Your task to perform on an android device: Search for razer huntsman on amazon.com, select the first entry, add it to the cart, then select checkout. Image 0: 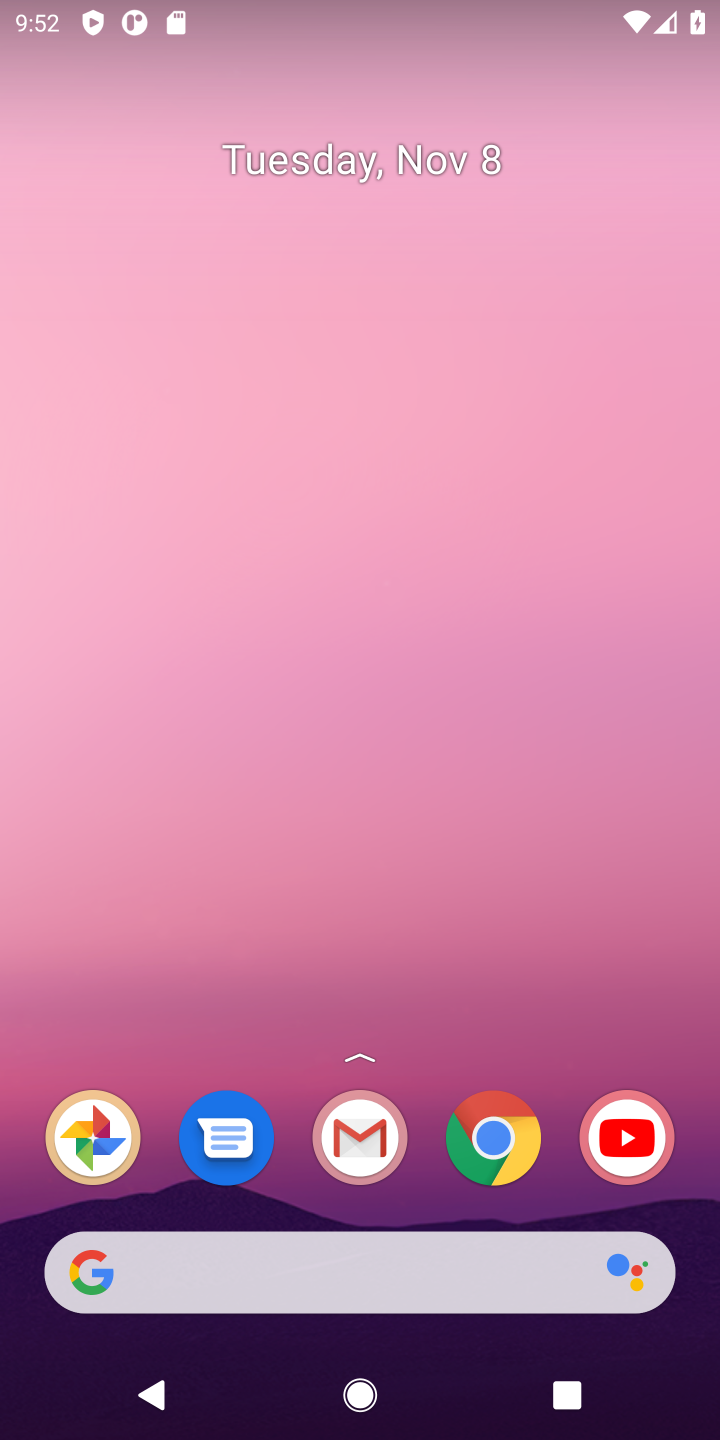
Step 0: click (497, 1133)
Your task to perform on an android device: Search for razer huntsman on amazon.com, select the first entry, add it to the cart, then select checkout. Image 1: 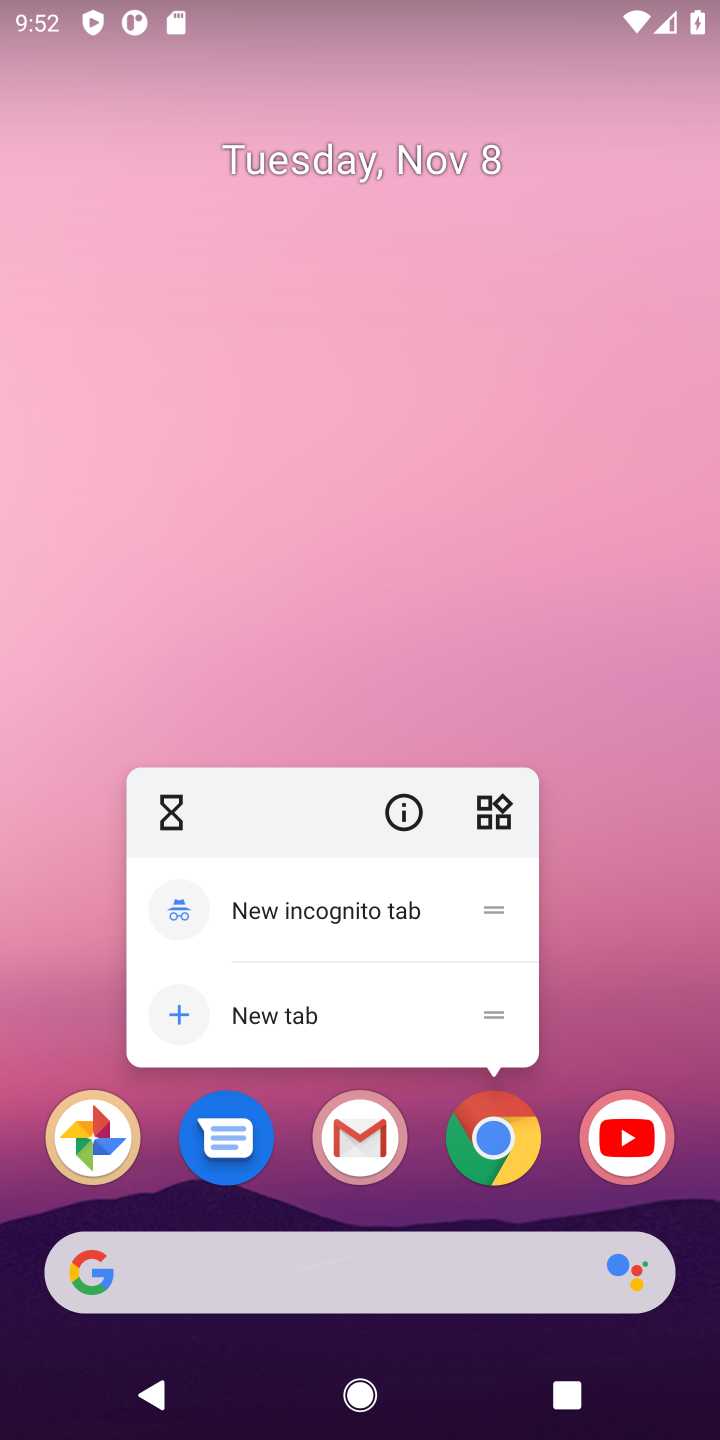
Step 1: click (497, 1147)
Your task to perform on an android device: Search for razer huntsman on amazon.com, select the first entry, add it to the cart, then select checkout. Image 2: 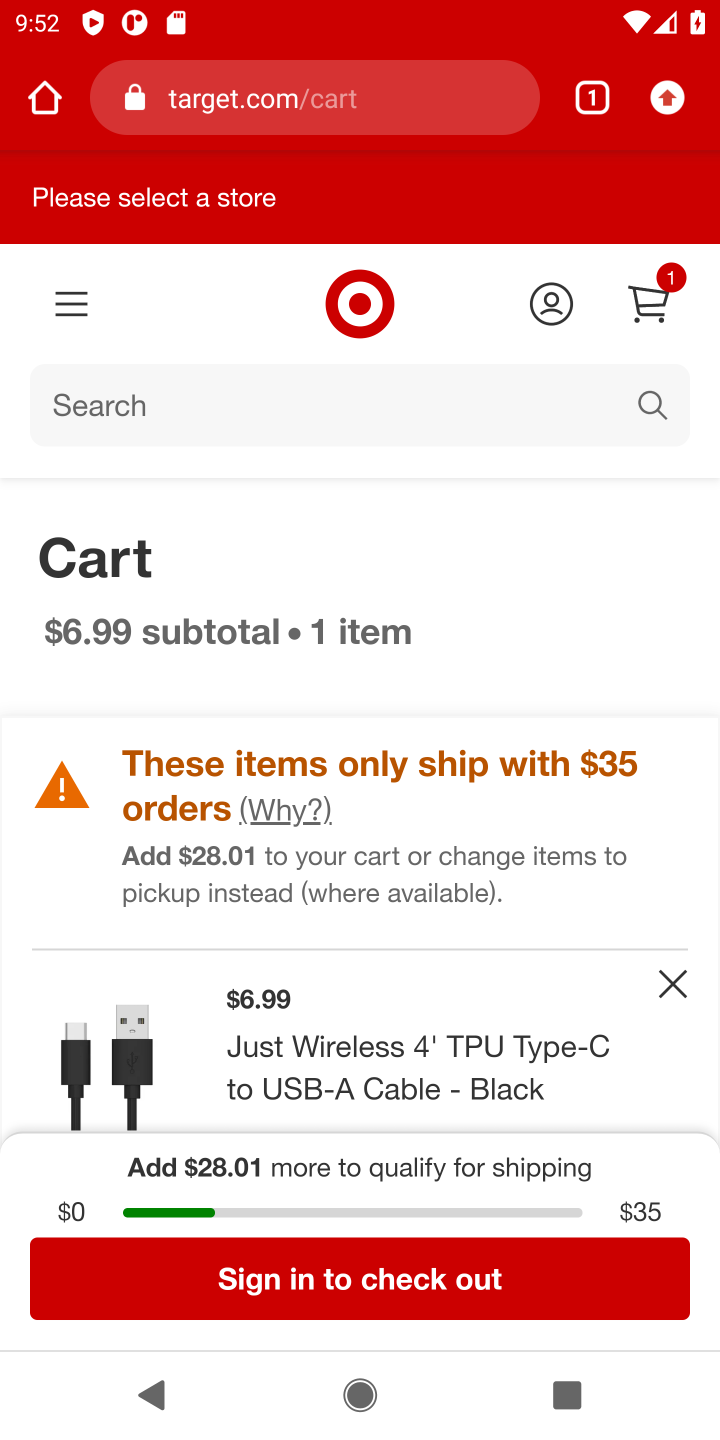
Step 2: click (295, 87)
Your task to perform on an android device: Search for razer huntsman on amazon.com, select the first entry, add it to the cart, then select checkout. Image 3: 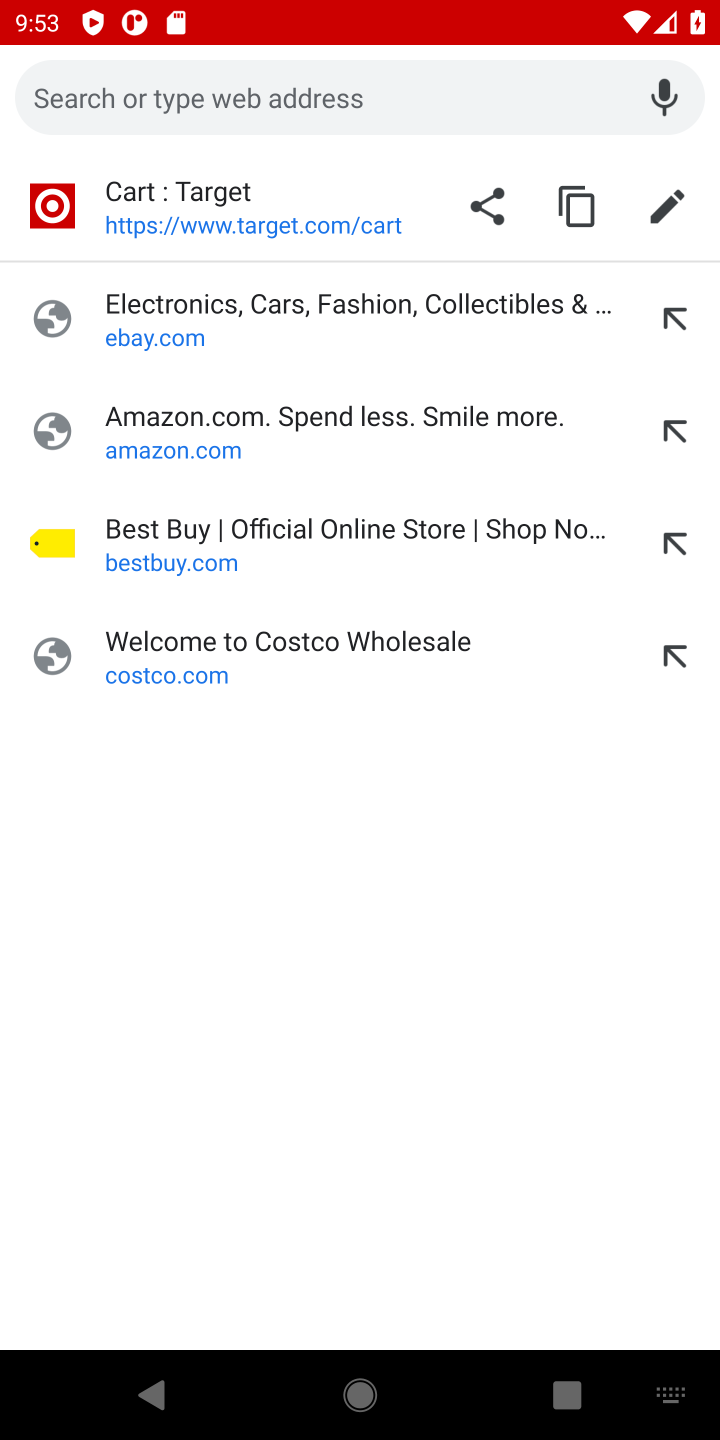
Step 3: click (186, 443)
Your task to perform on an android device: Search for razer huntsman on amazon.com, select the first entry, add it to the cart, then select checkout. Image 4: 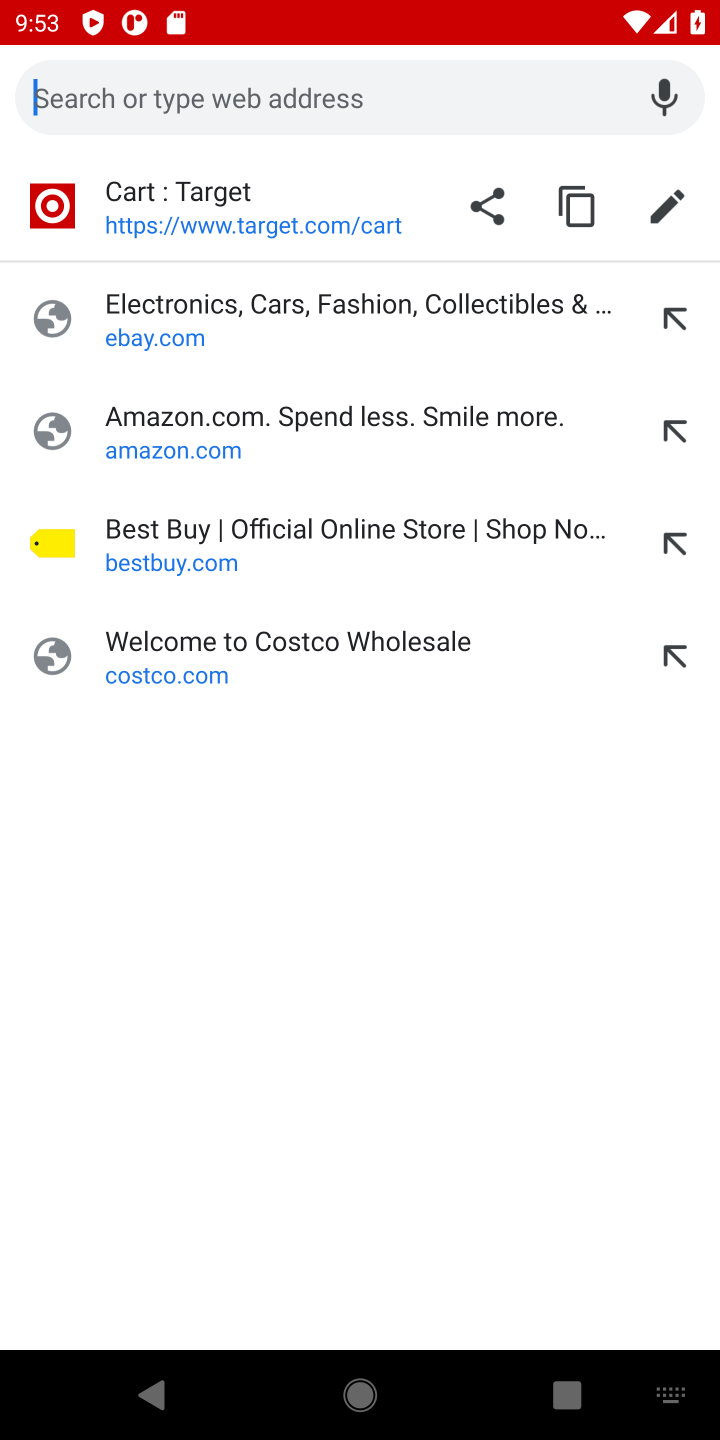
Step 4: click (184, 445)
Your task to perform on an android device: Search for razer huntsman on amazon.com, select the first entry, add it to the cart, then select checkout. Image 5: 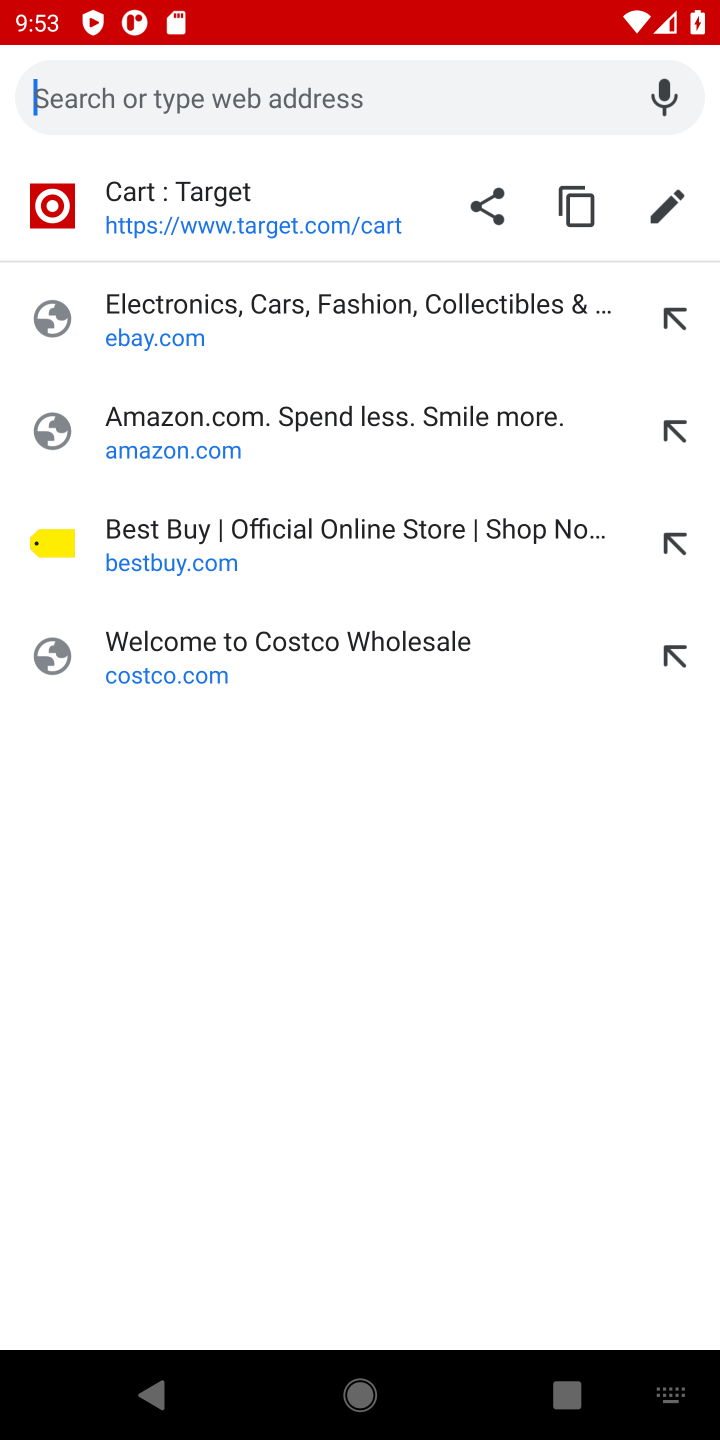
Step 5: click (178, 449)
Your task to perform on an android device: Search for razer huntsman on amazon.com, select the first entry, add it to the cart, then select checkout. Image 6: 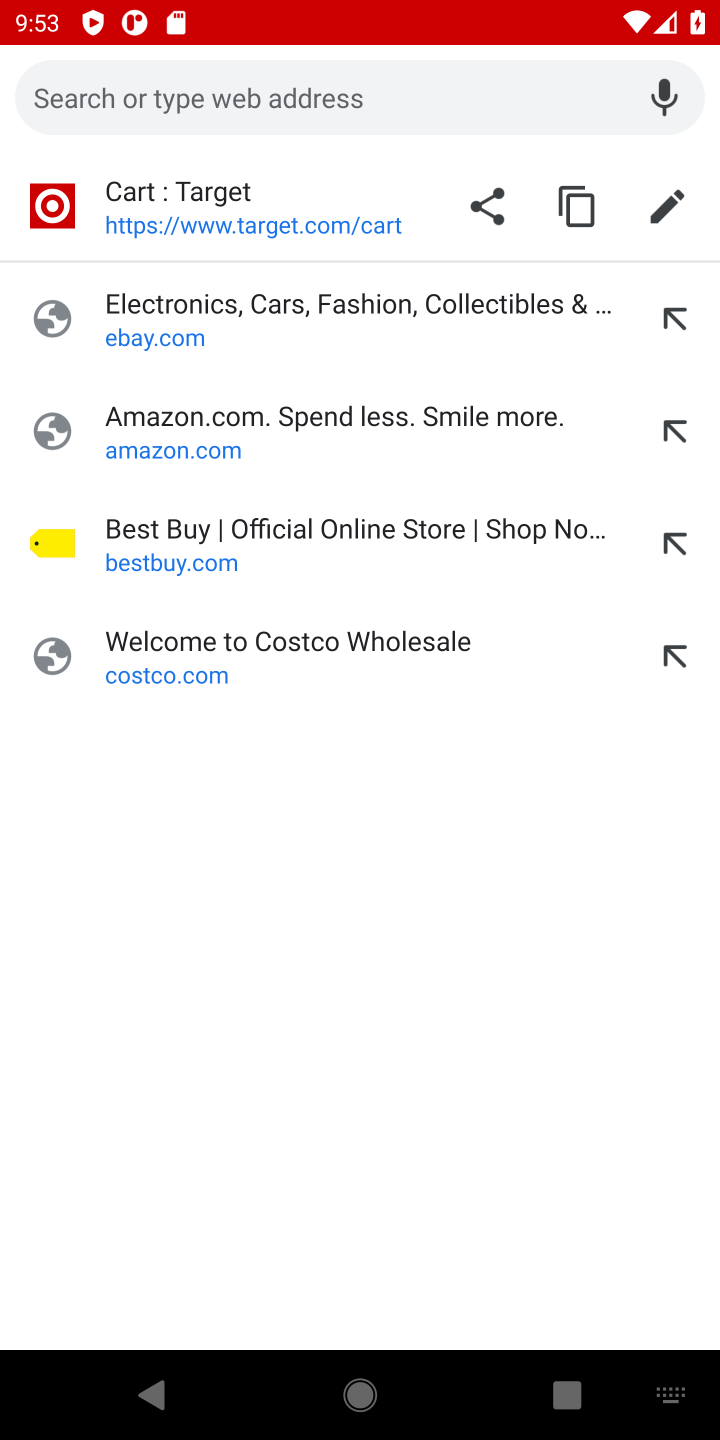
Step 6: click (171, 441)
Your task to perform on an android device: Search for razer huntsman on amazon.com, select the first entry, add it to the cart, then select checkout. Image 7: 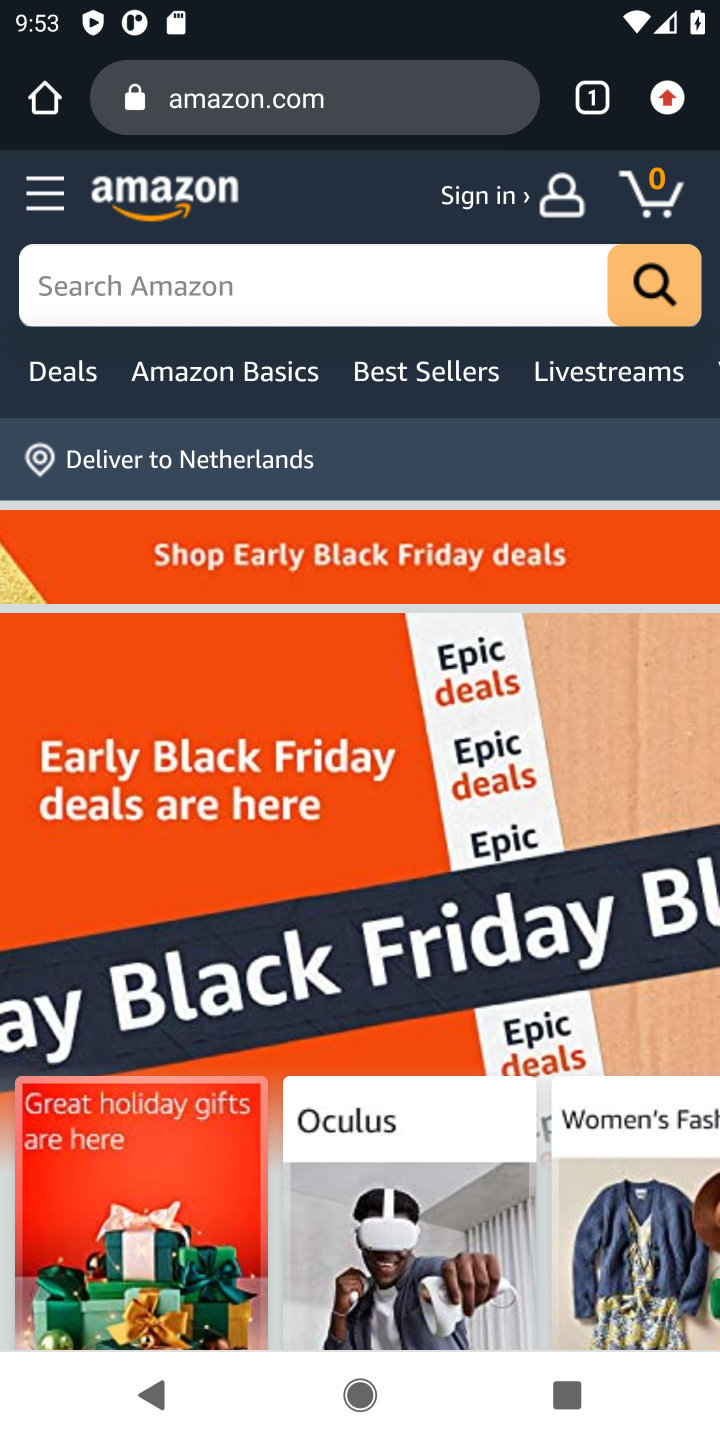
Step 7: click (91, 258)
Your task to perform on an android device: Search for razer huntsman on amazon.com, select the first entry, add it to the cart, then select checkout. Image 8: 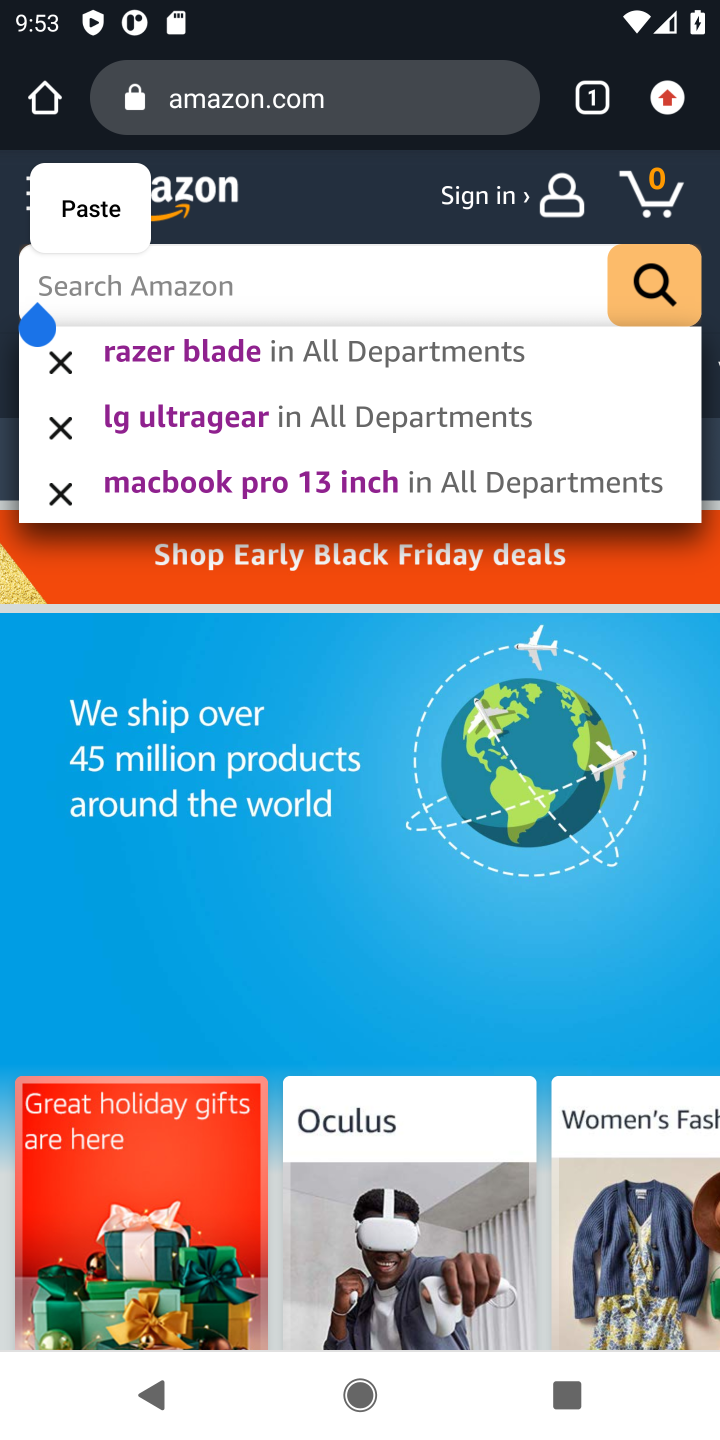
Step 8: press enter
Your task to perform on an android device: Search for razer huntsman on amazon.com, select the first entry, add it to the cart, then select checkout. Image 9: 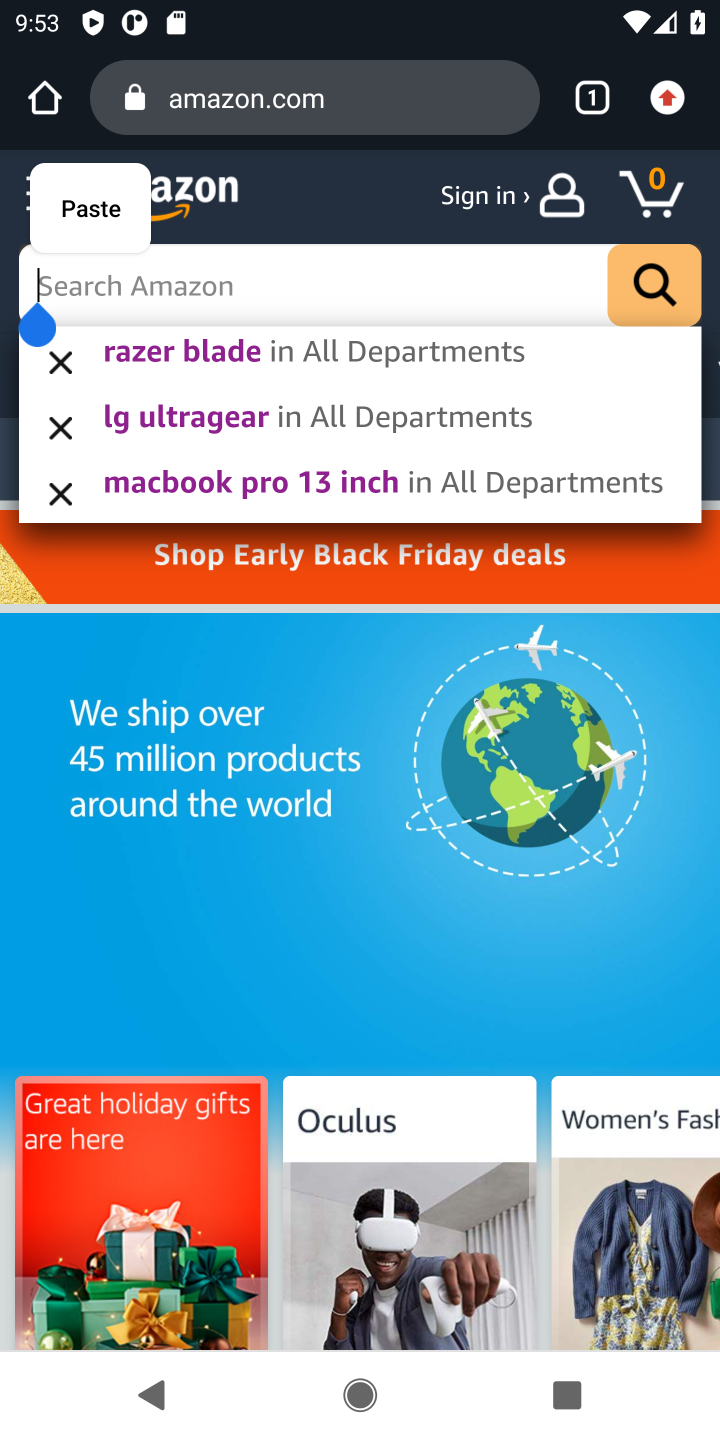
Step 9: type " razer huntsman "
Your task to perform on an android device: Search for razer huntsman on amazon.com, select the first entry, add it to the cart, then select checkout. Image 10: 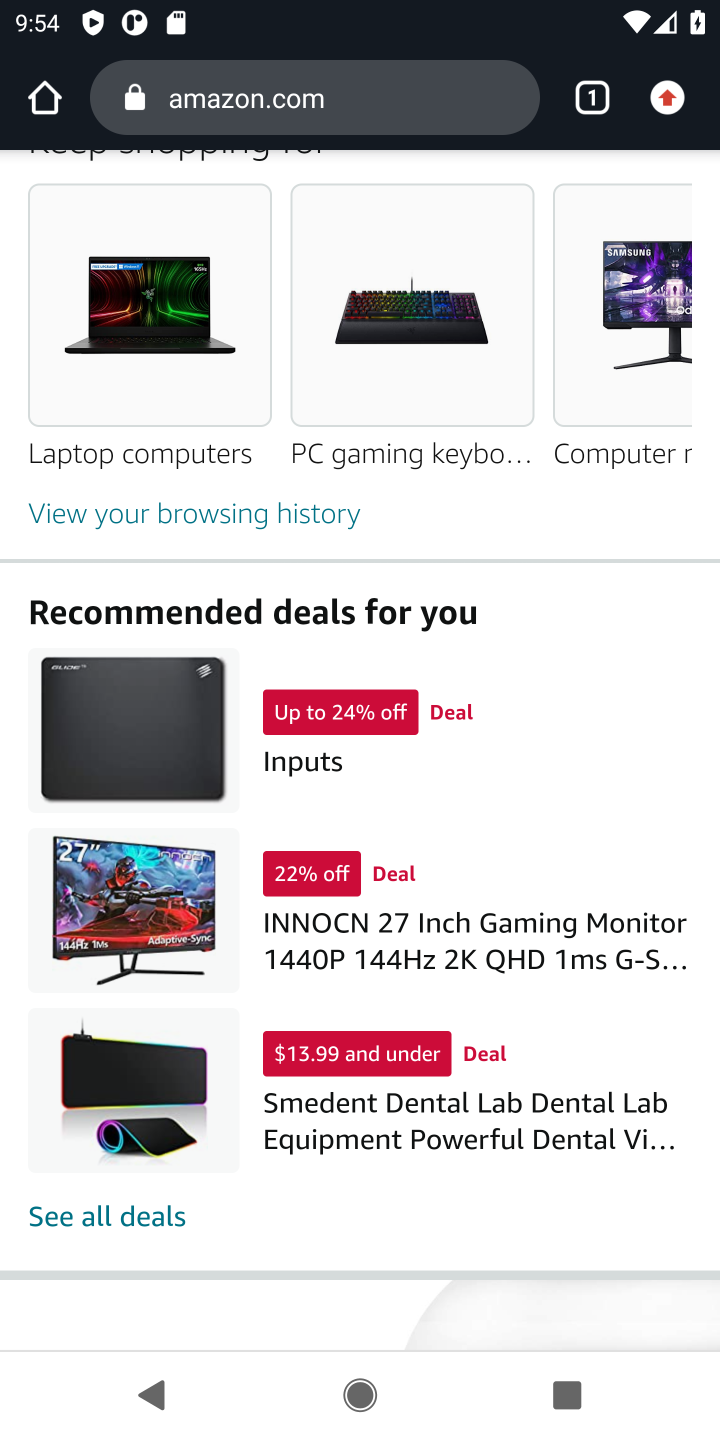
Step 10: drag from (543, 510) to (372, 1269)
Your task to perform on an android device: Search for razer huntsman on amazon.com, select the first entry, add it to the cart, then select checkout. Image 11: 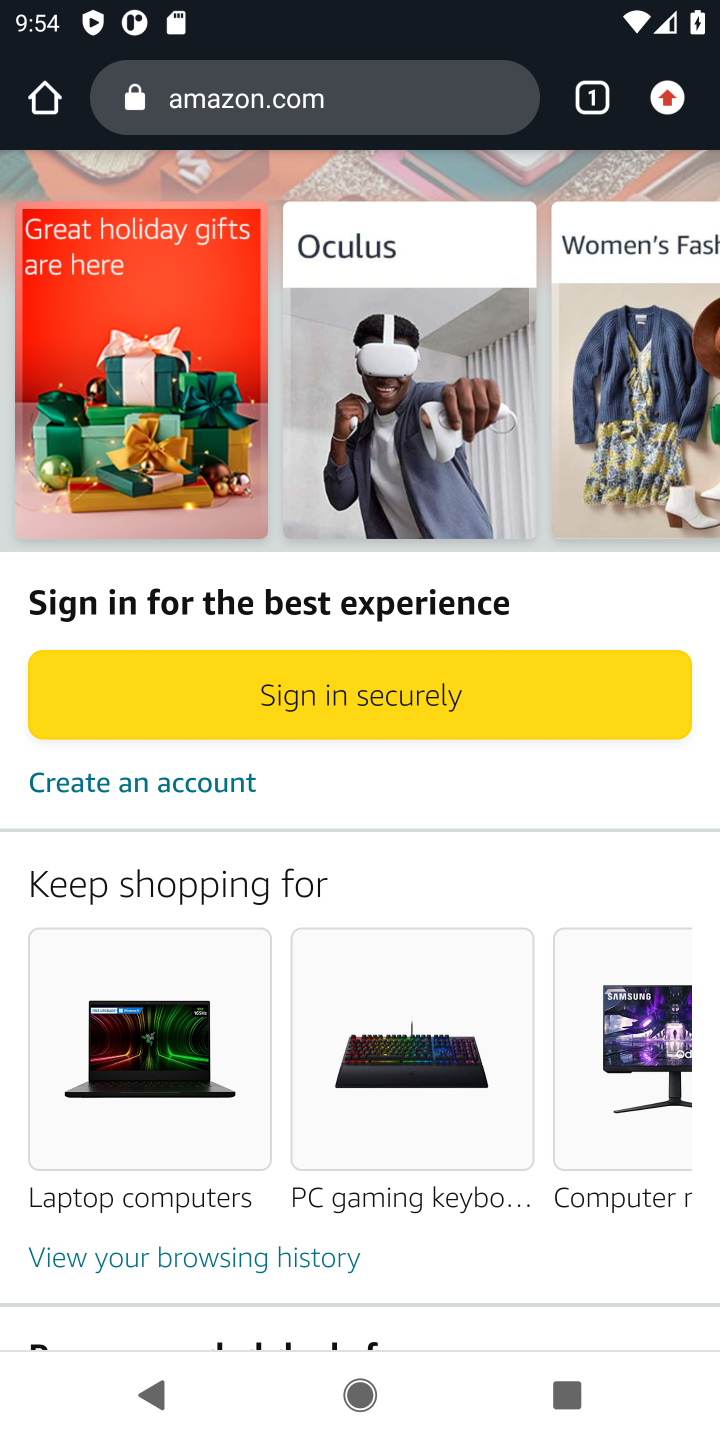
Step 11: drag from (577, 555) to (524, 1290)
Your task to perform on an android device: Search for razer huntsman on amazon.com, select the first entry, add it to the cart, then select checkout. Image 12: 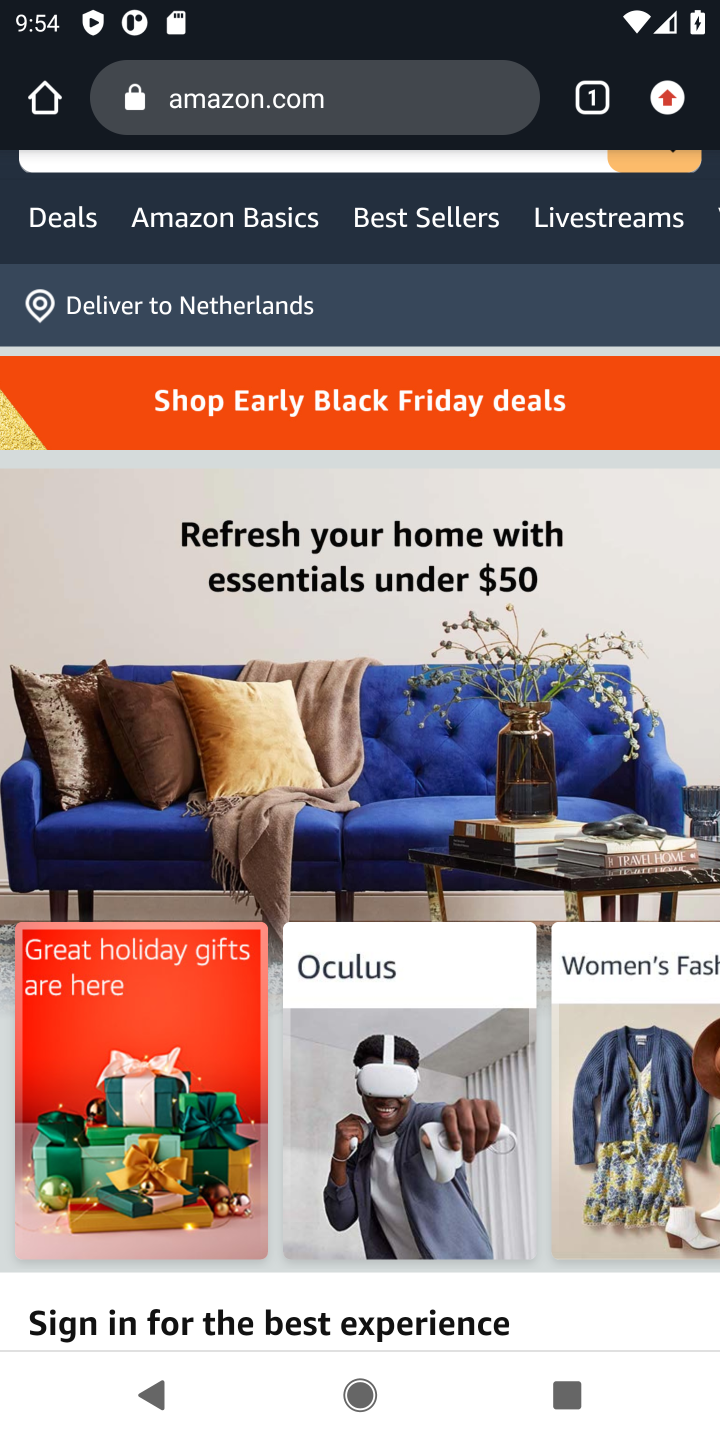
Step 12: drag from (453, 549) to (406, 1248)
Your task to perform on an android device: Search for razer huntsman on amazon.com, select the first entry, add it to the cart, then select checkout. Image 13: 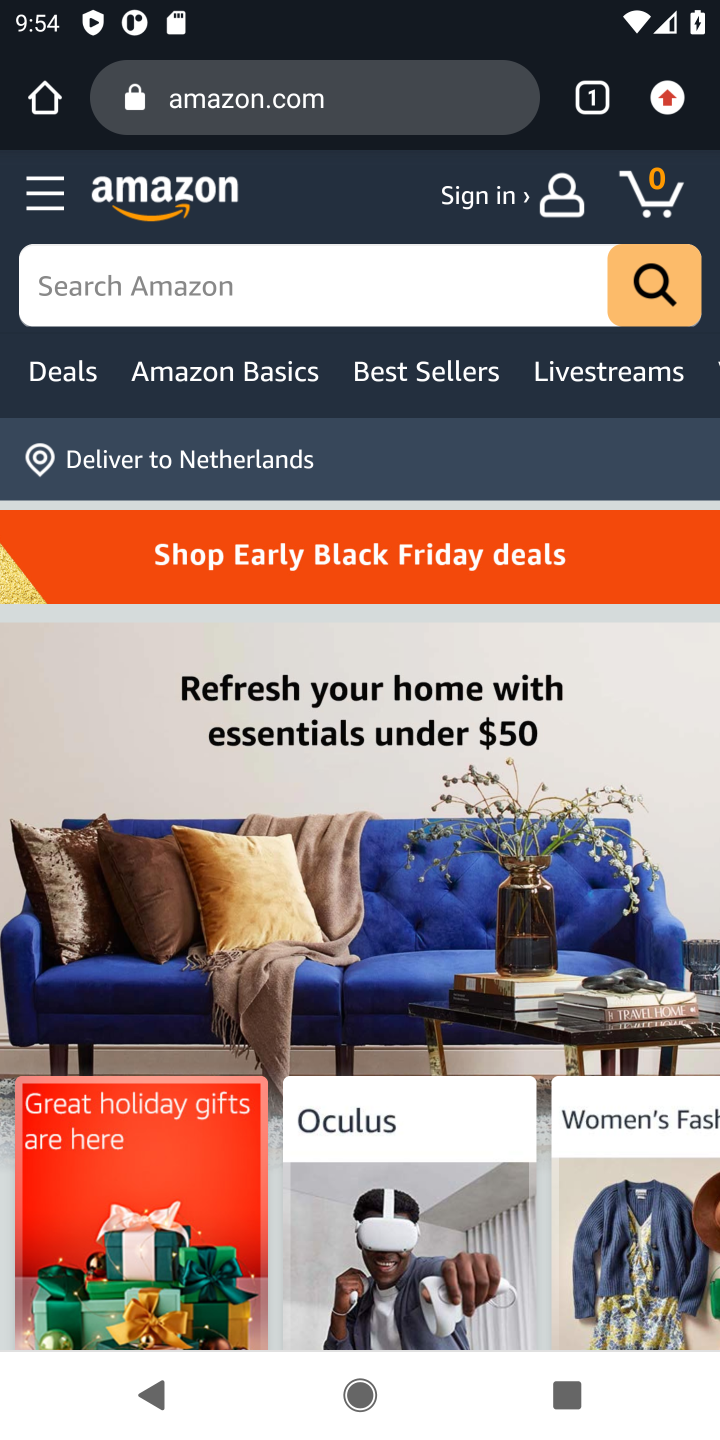
Step 13: click (166, 274)
Your task to perform on an android device: Search for razer huntsman on amazon.com, select the first entry, add it to the cart, then select checkout. Image 14: 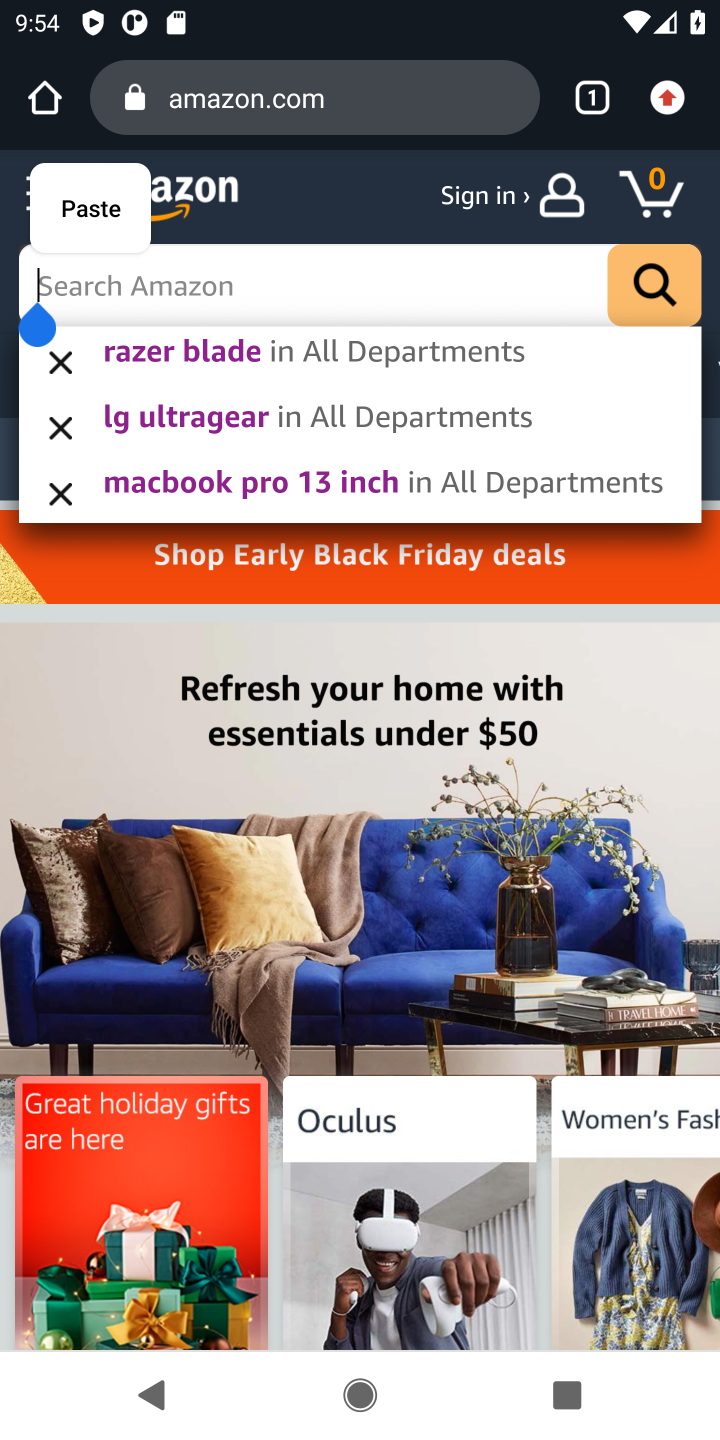
Step 14: press enter
Your task to perform on an android device: Search for razer huntsman on amazon.com, select the first entry, add it to the cart, then select checkout. Image 15: 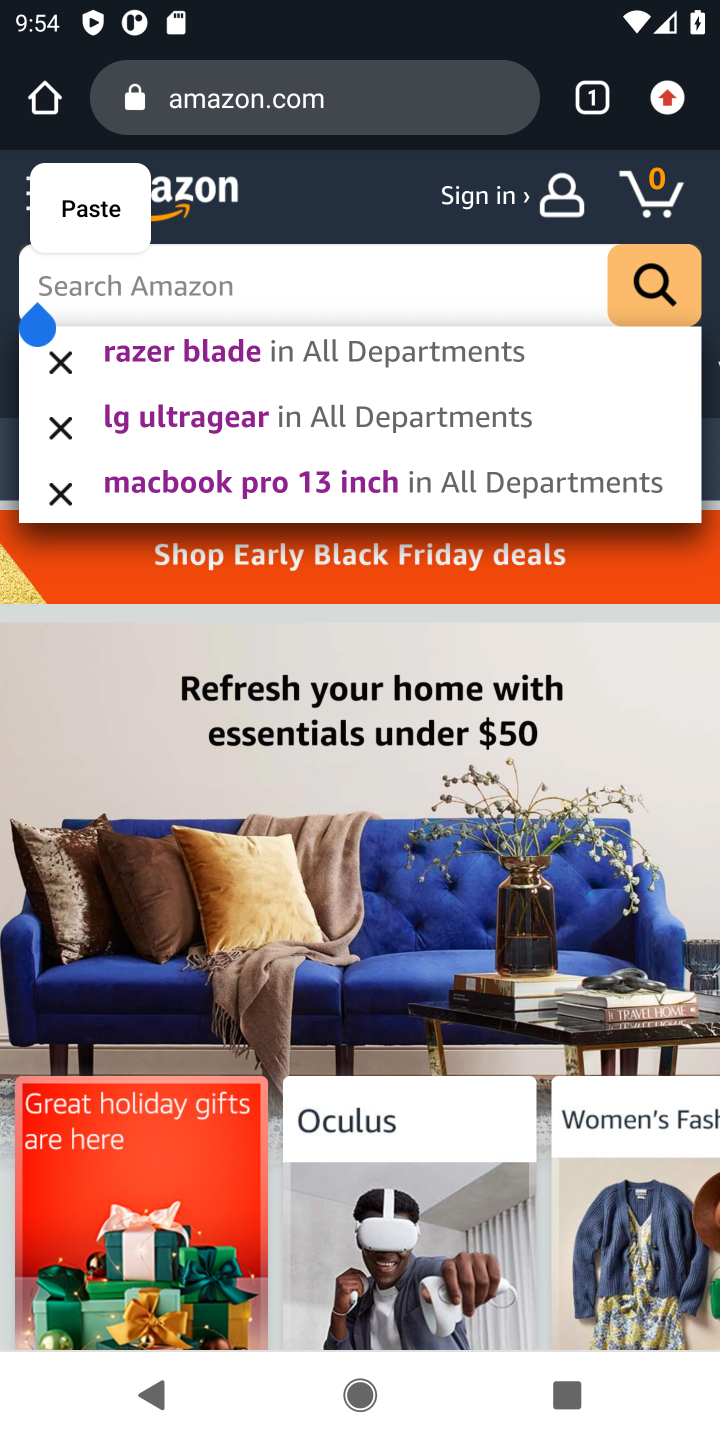
Step 15: type " razer huntsman"
Your task to perform on an android device: Search for razer huntsman on amazon.com, select the first entry, add it to the cart, then select checkout. Image 16: 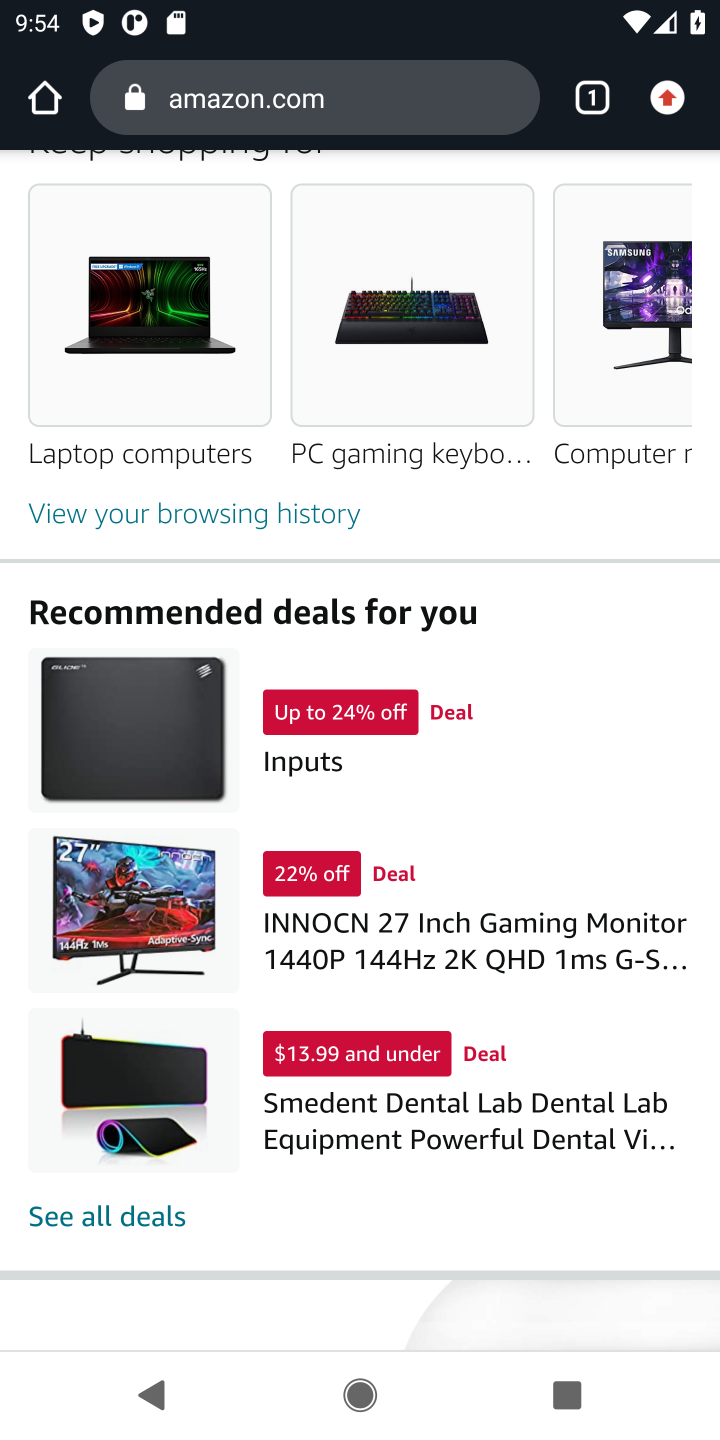
Step 16: drag from (495, 251) to (505, 1363)
Your task to perform on an android device: Search for razer huntsman on amazon.com, select the first entry, add it to the cart, then select checkout. Image 17: 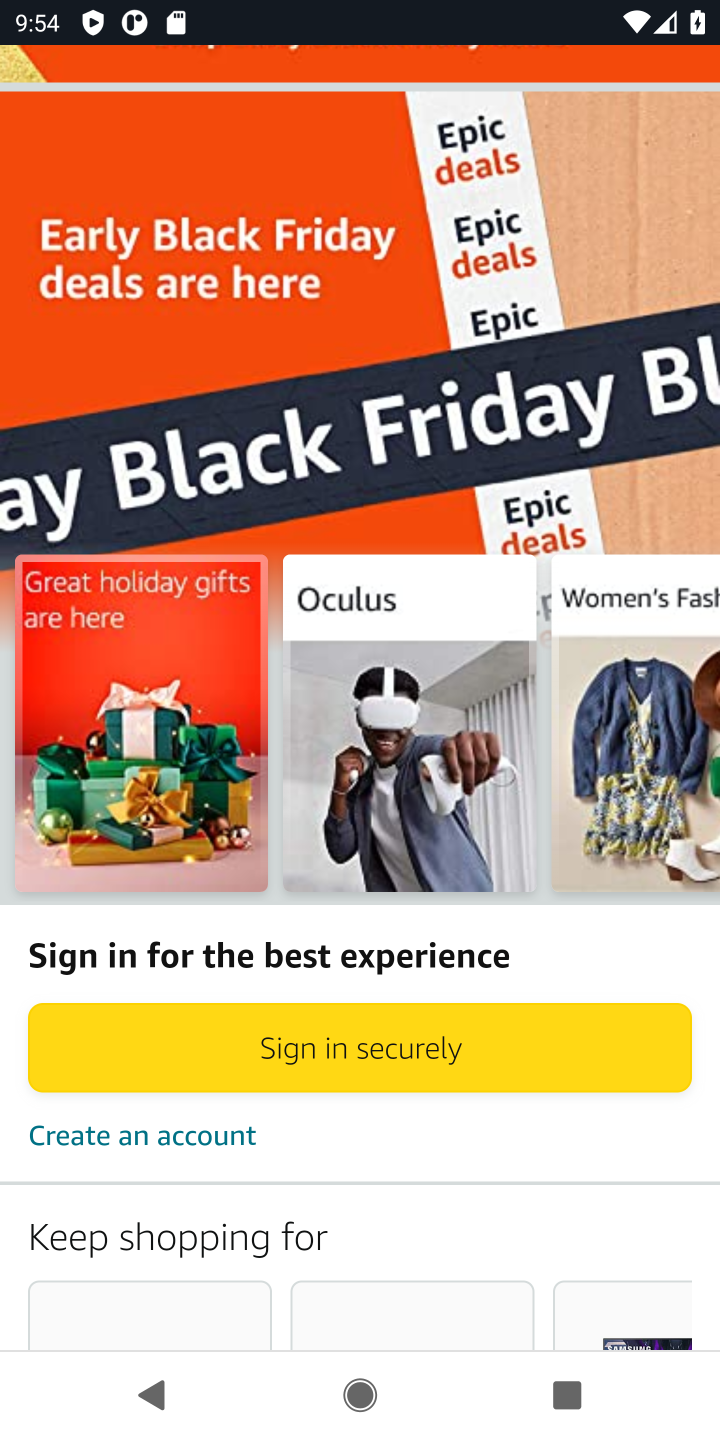
Step 17: drag from (493, 417) to (503, 1353)
Your task to perform on an android device: Search for razer huntsman on amazon.com, select the first entry, add it to the cart, then select checkout. Image 18: 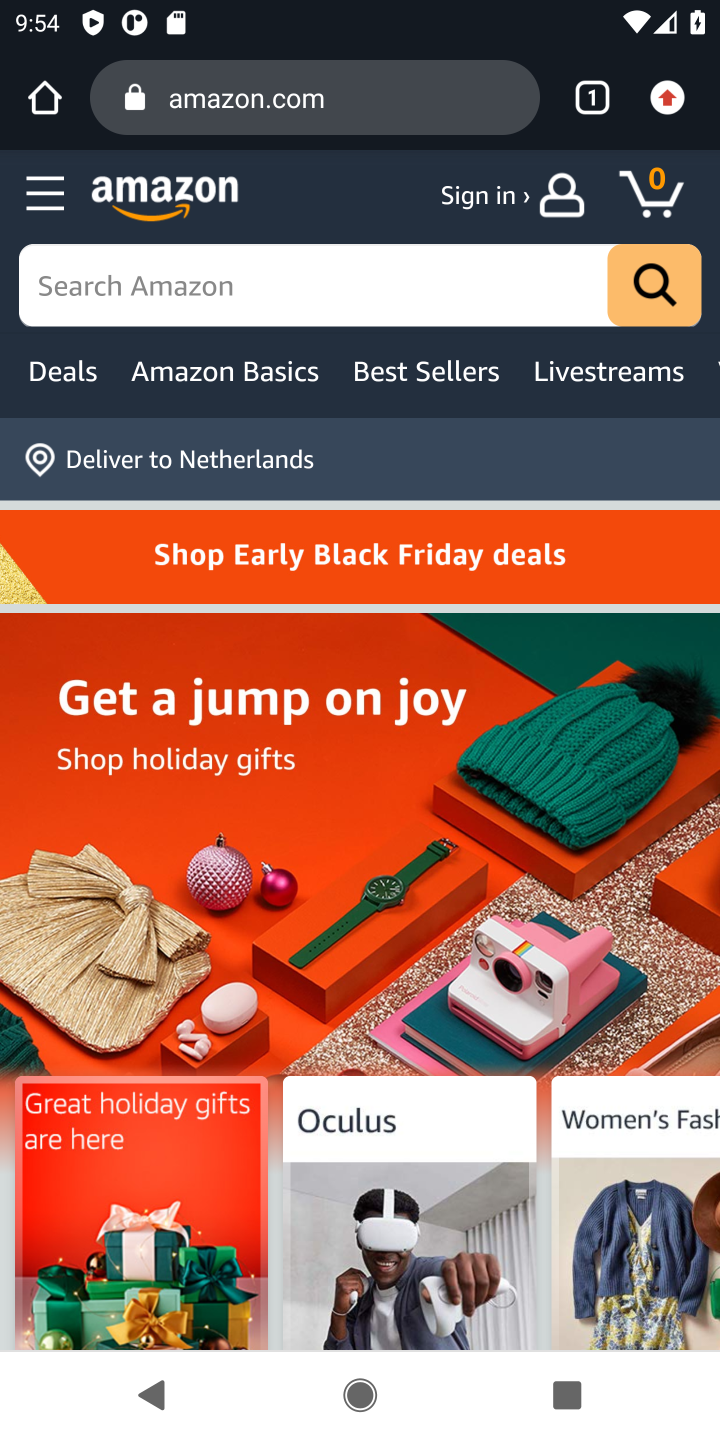
Step 18: click (42, 291)
Your task to perform on an android device: Search for razer huntsman on amazon.com, select the first entry, add it to the cart, then select checkout. Image 19: 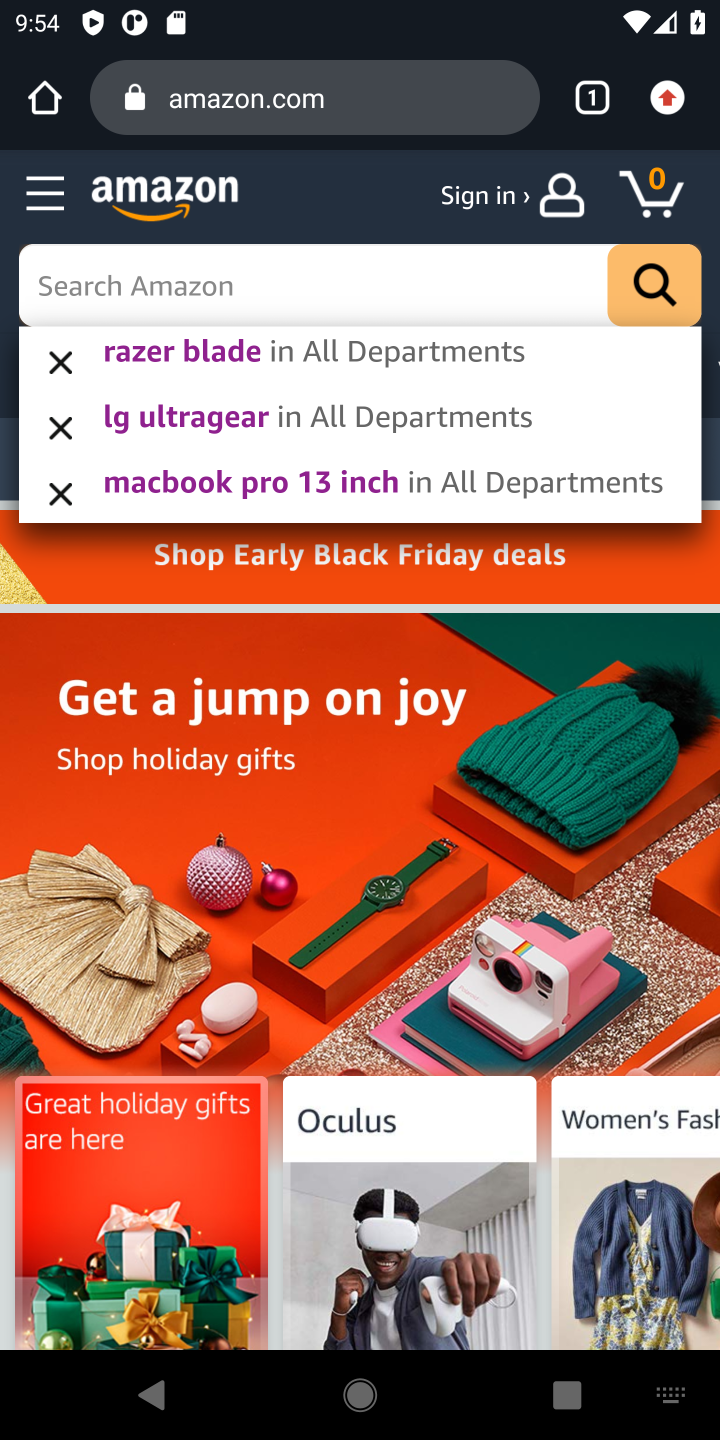
Step 19: click (75, 269)
Your task to perform on an android device: Search for razer huntsman on amazon.com, select the first entry, add it to the cart, then select checkout. Image 20: 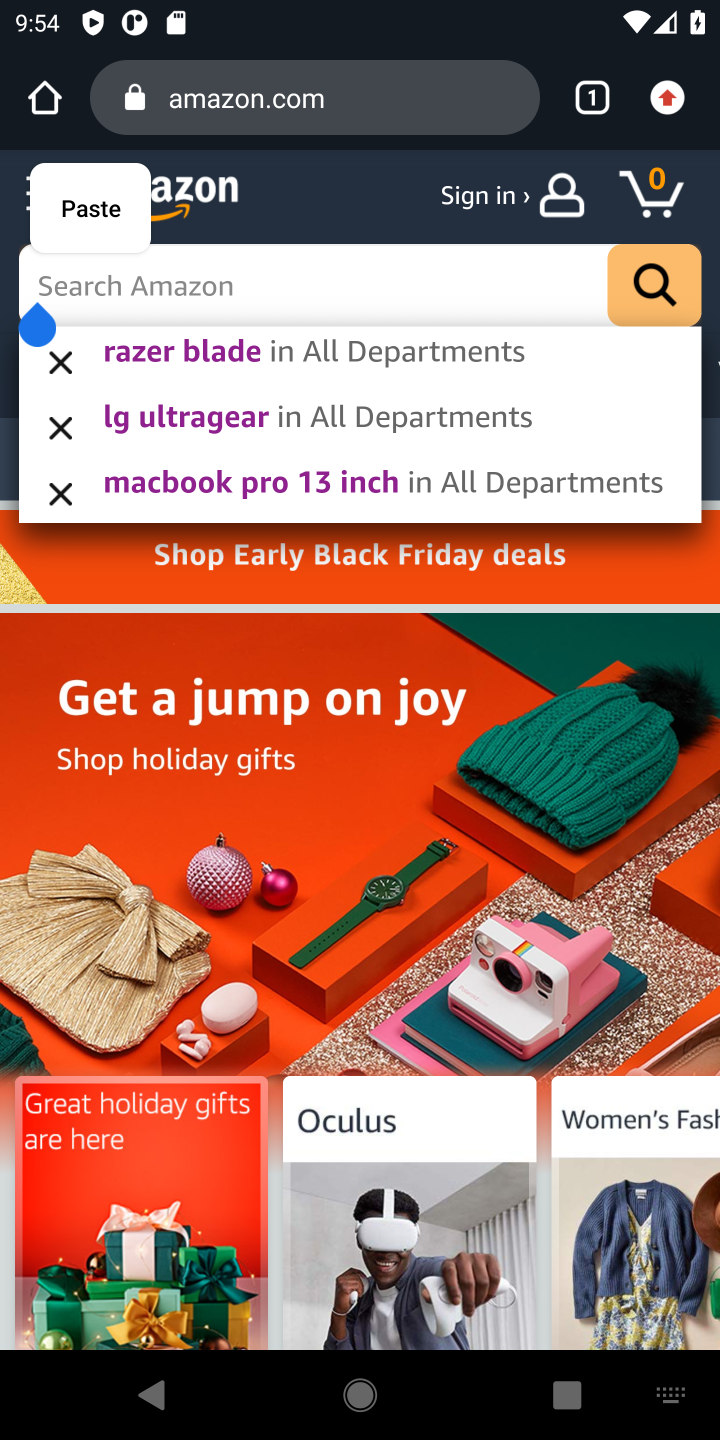
Step 20: type "razer huntsman"
Your task to perform on an android device: Search for razer huntsman on amazon.com, select the first entry, add it to the cart, then select checkout. Image 21: 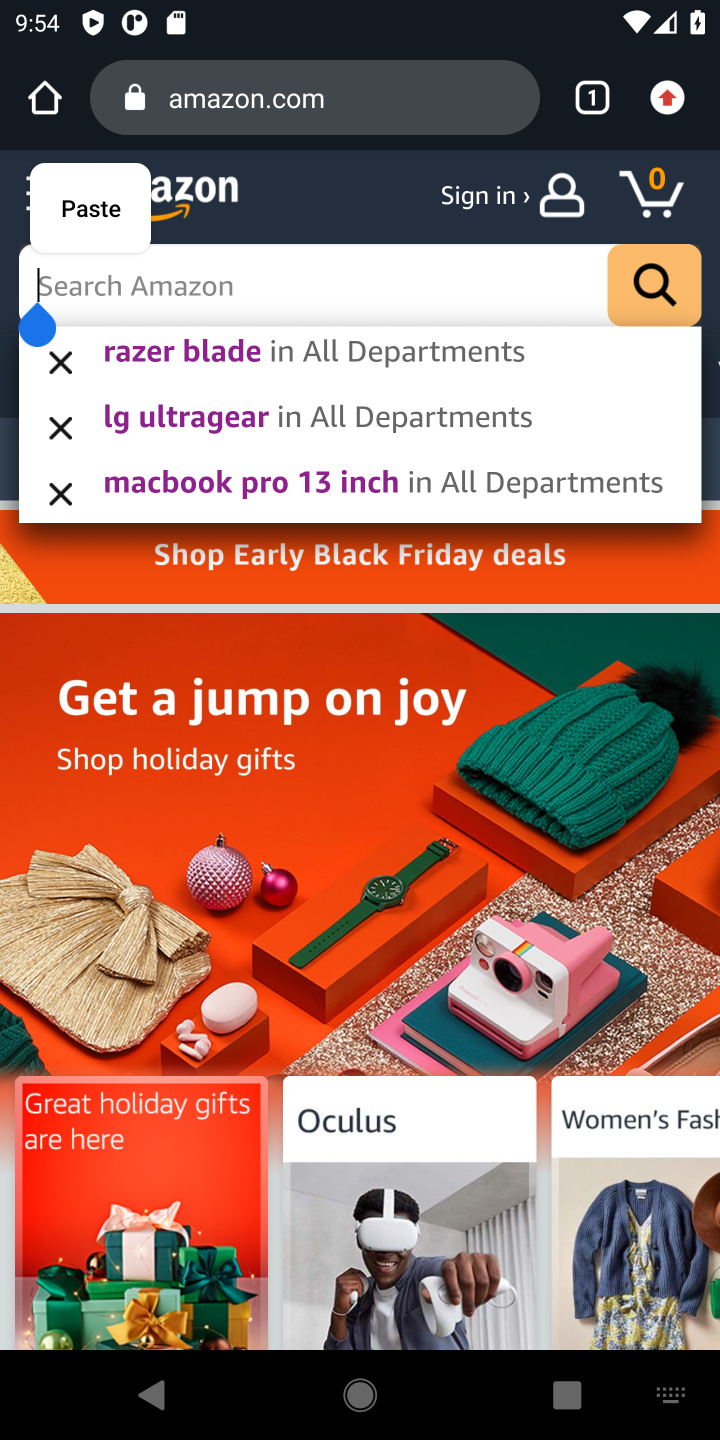
Step 21: click (148, 279)
Your task to perform on an android device: Search for razer huntsman on amazon.com, select the first entry, add it to the cart, then select checkout. Image 22: 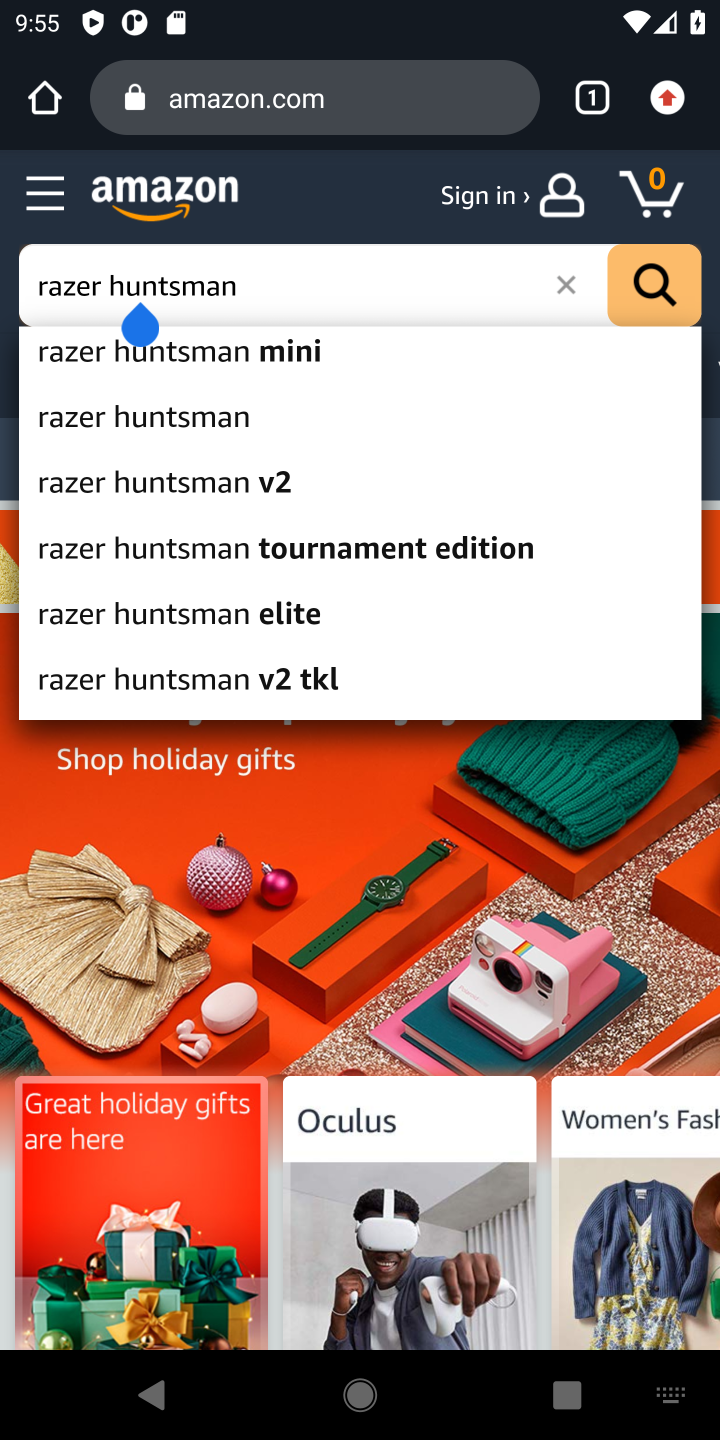
Step 22: click (660, 276)
Your task to perform on an android device: Search for razer huntsman on amazon.com, select the first entry, add it to the cart, then select checkout. Image 23: 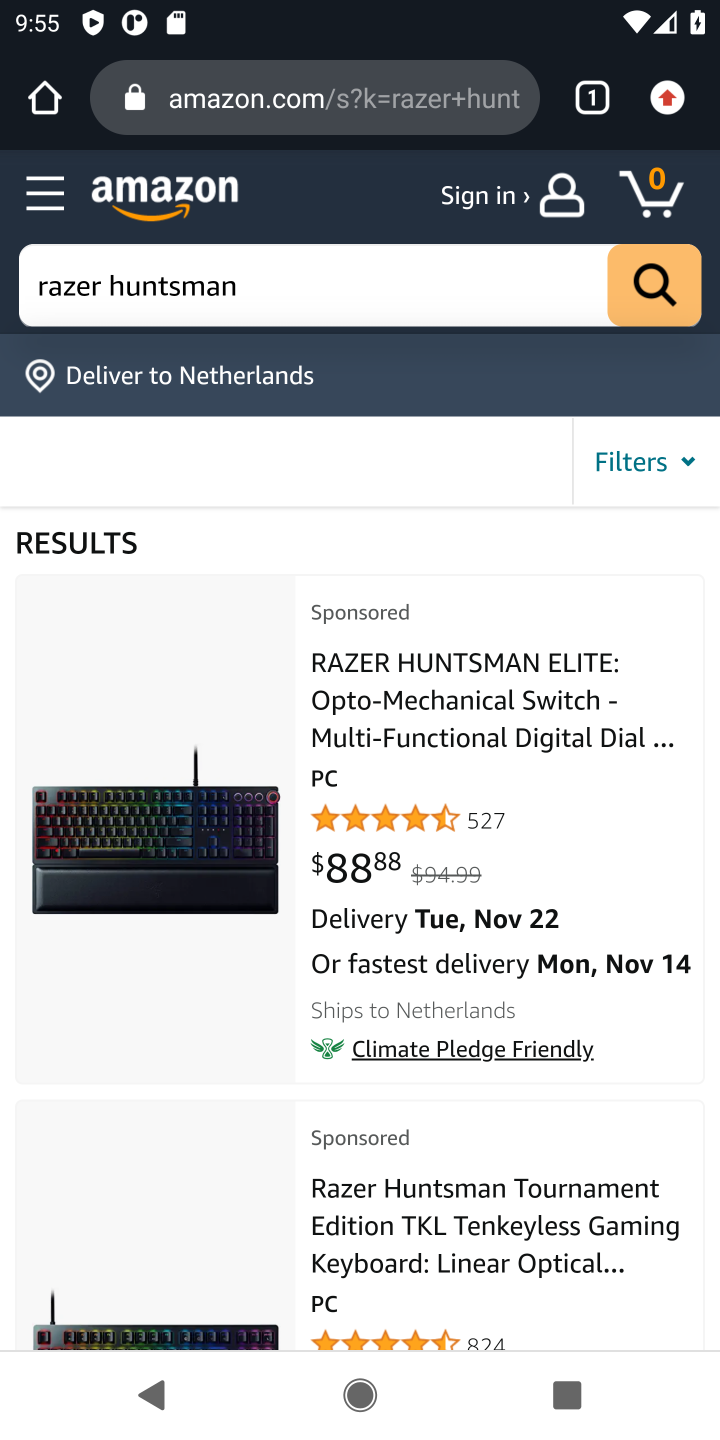
Step 23: click (501, 662)
Your task to perform on an android device: Search for razer huntsman on amazon.com, select the first entry, add it to the cart, then select checkout. Image 24: 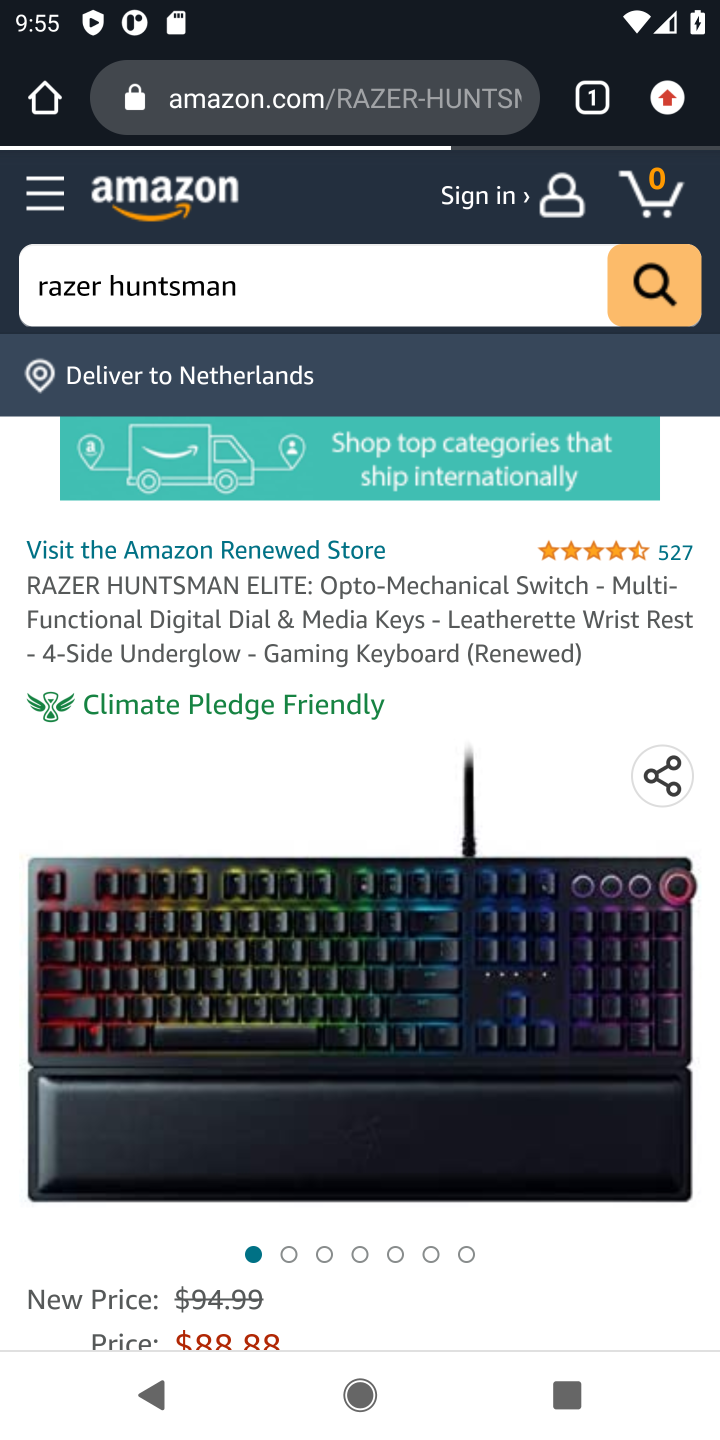
Step 24: drag from (485, 1278) to (500, 519)
Your task to perform on an android device: Search for razer huntsman on amazon.com, select the first entry, add it to the cart, then select checkout. Image 25: 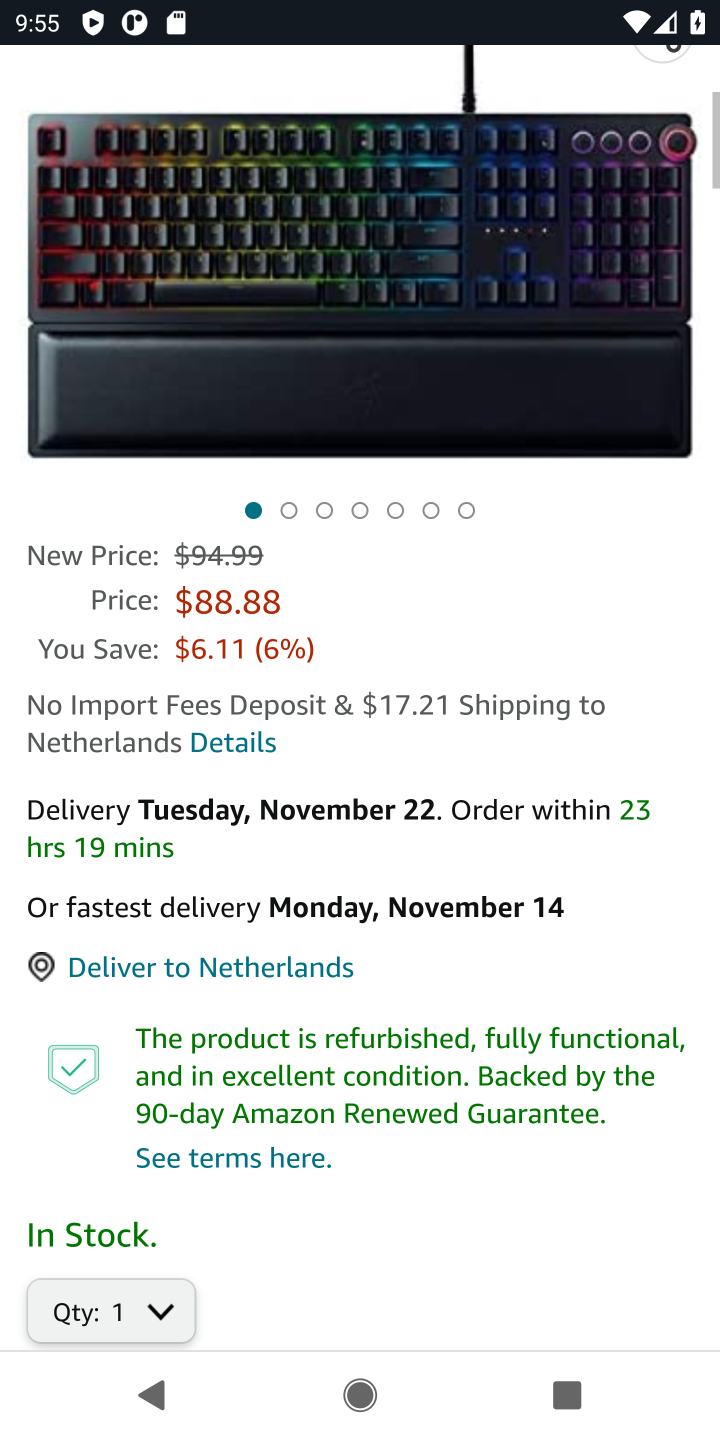
Step 25: drag from (389, 1178) to (481, 562)
Your task to perform on an android device: Search for razer huntsman on amazon.com, select the first entry, add it to the cart, then select checkout. Image 26: 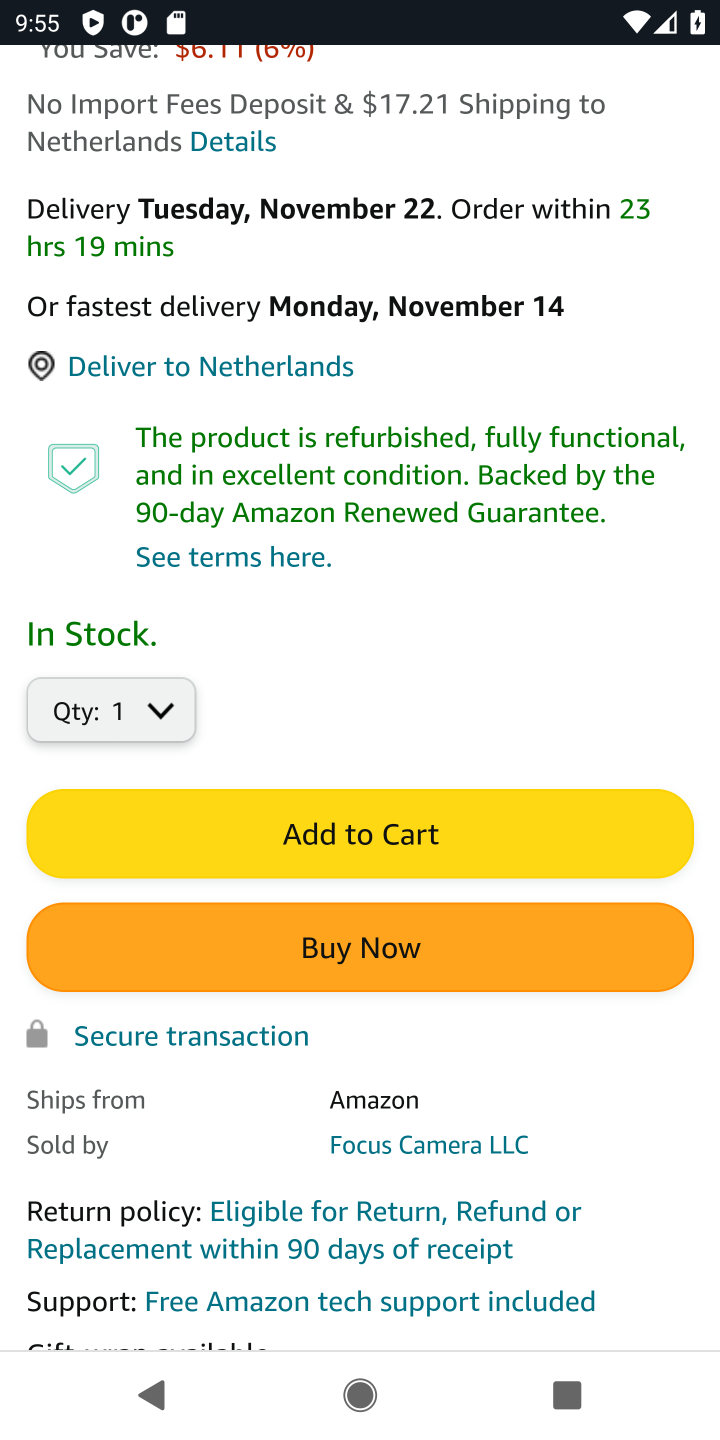
Step 26: click (392, 825)
Your task to perform on an android device: Search for razer huntsman on amazon.com, select the first entry, add it to the cart, then select checkout. Image 27: 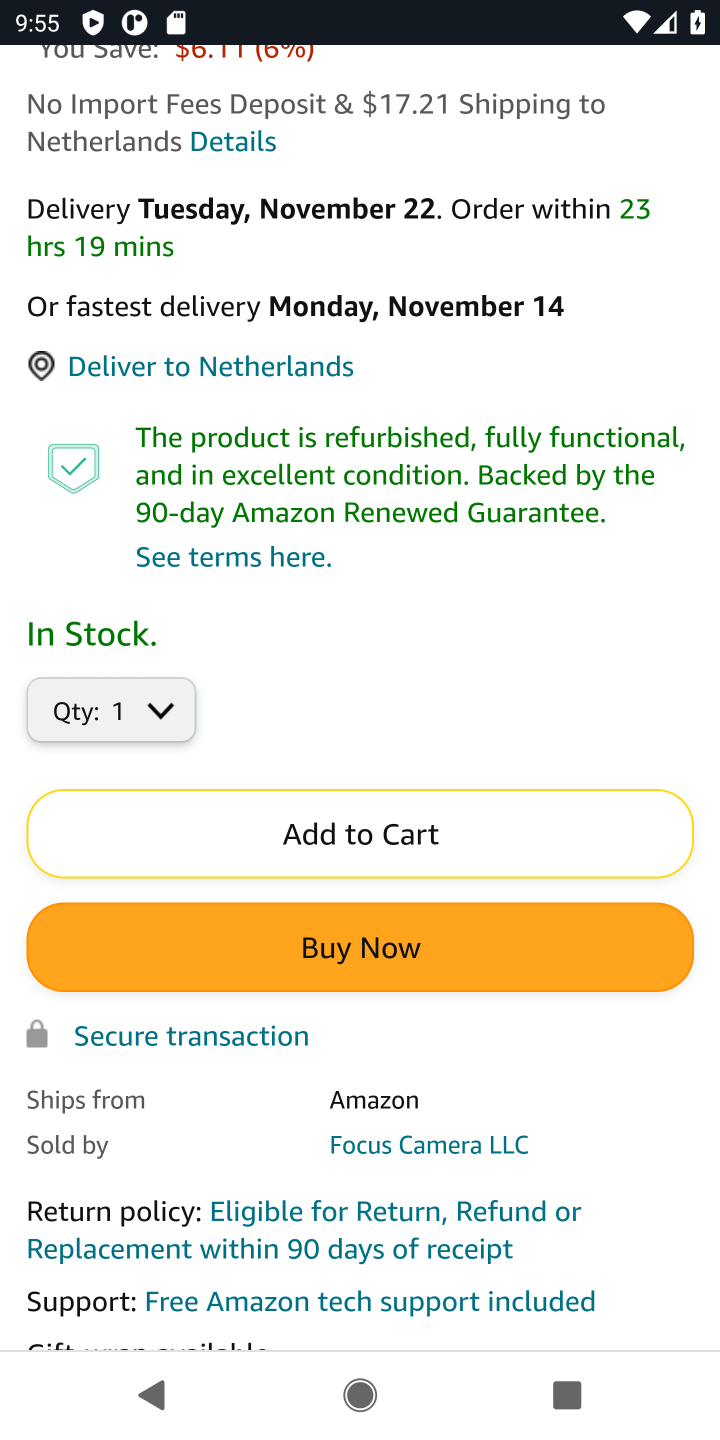
Step 27: click (392, 827)
Your task to perform on an android device: Search for razer huntsman on amazon.com, select the first entry, add it to the cart, then select checkout. Image 28: 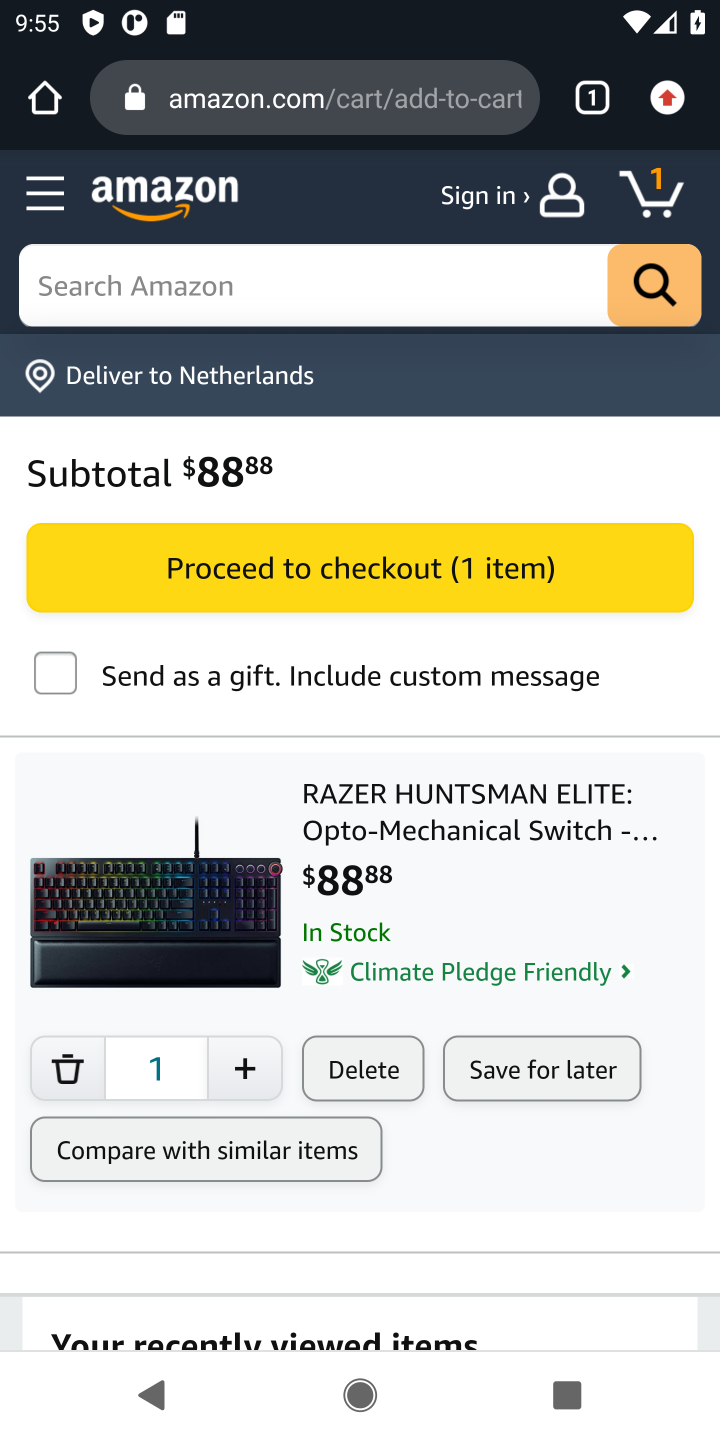
Step 28: click (355, 568)
Your task to perform on an android device: Search for razer huntsman on amazon.com, select the first entry, add it to the cart, then select checkout. Image 29: 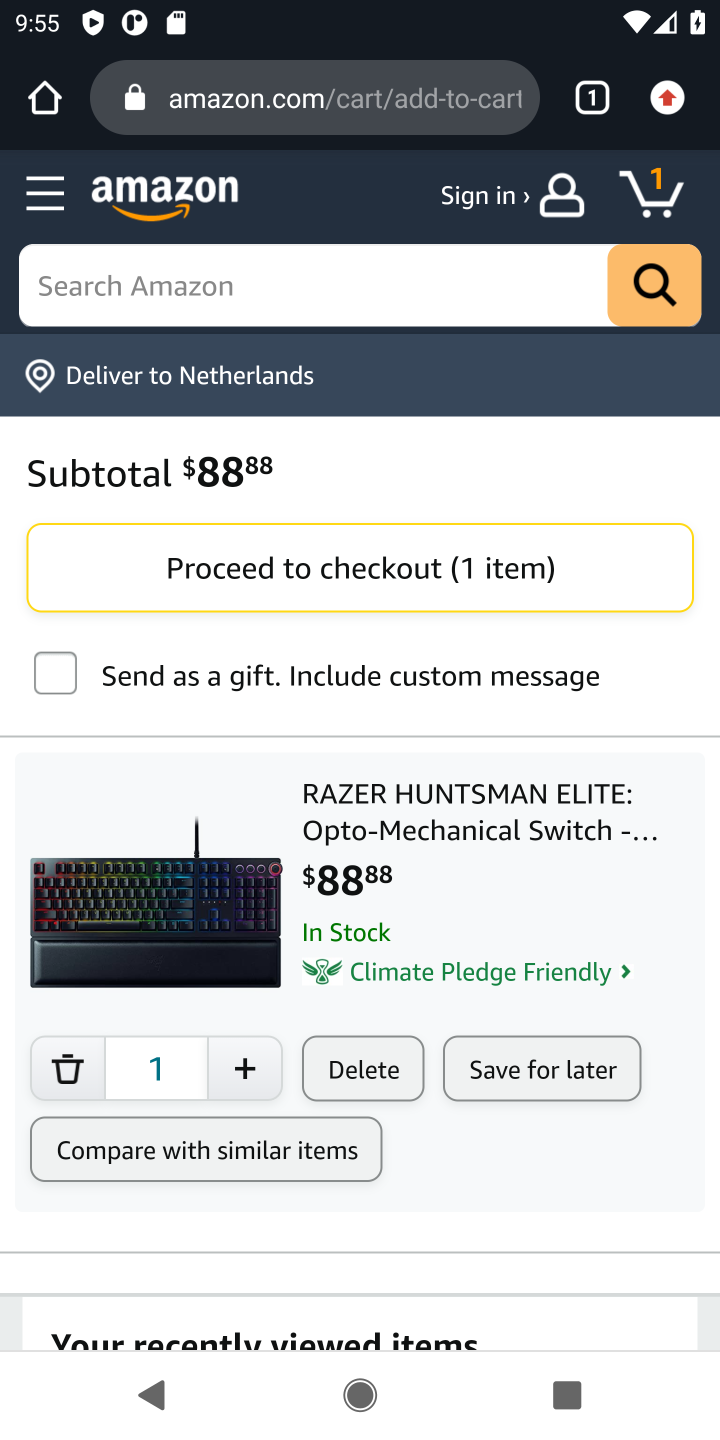
Step 29: click (450, 564)
Your task to perform on an android device: Search for razer huntsman on amazon.com, select the first entry, add it to the cart, then select checkout. Image 30: 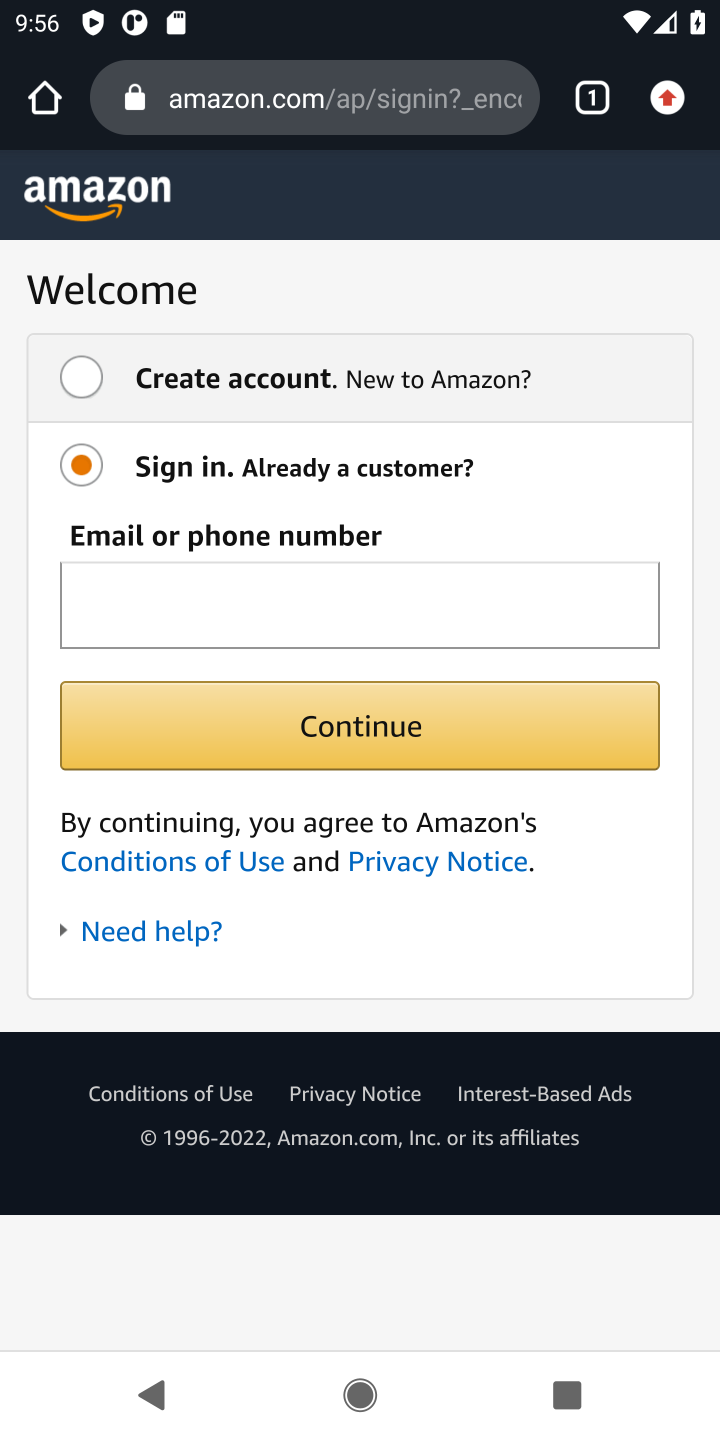
Step 30: task complete